Your task to perform on an android device: What's on my calendar today? Image 0: 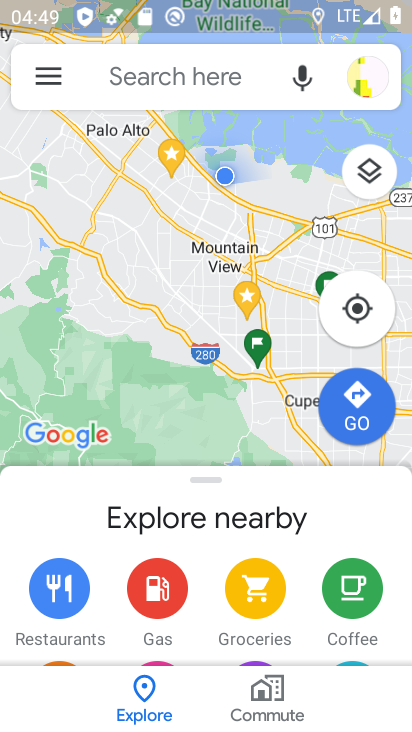
Step 0: press home button
Your task to perform on an android device: What's on my calendar today? Image 1: 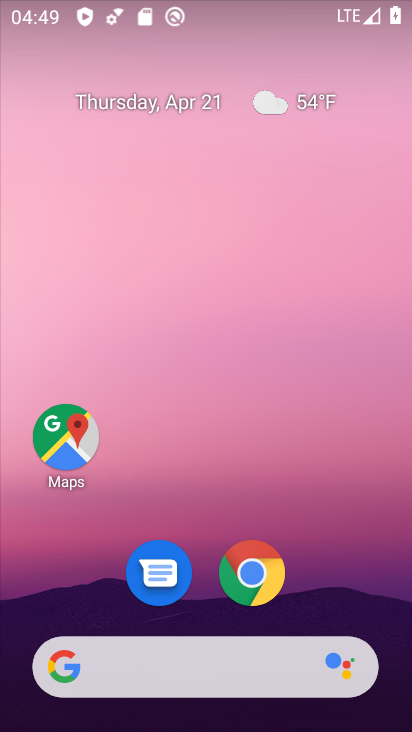
Step 1: drag from (371, 615) to (331, 169)
Your task to perform on an android device: What's on my calendar today? Image 2: 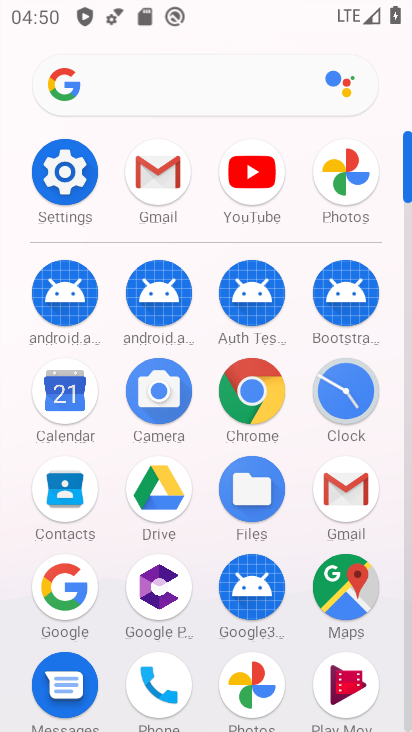
Step 2: click (60, 395)
Your task to perform on an android device: What's on my calendar today? Image 3: 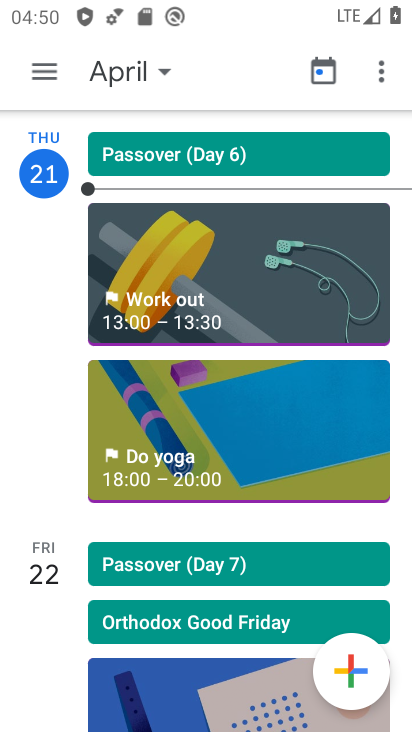
Step 3: click (35, 62)
Your task to perform on an android device: What's on my calendar today? Image 4: 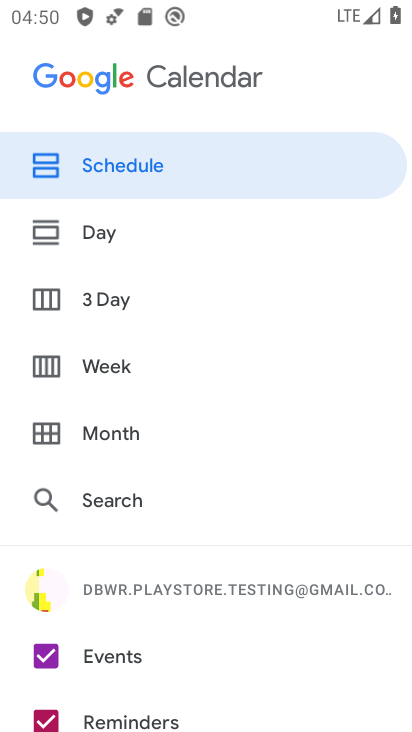
Step 4: click (100, 233)
Your task to perform on an android device: What's on my calendar today? Image 5: 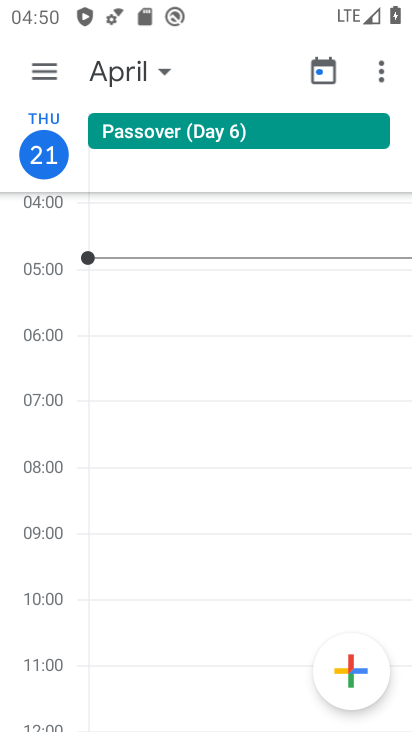
Step 5: task complete